Your task to perform on an android device: Open maps Image 0: 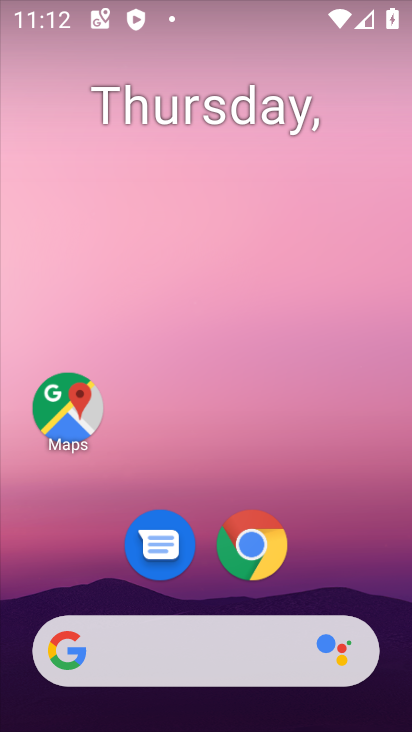
Step 0: click (254, 552)
Your task to perform on an android device: Open maps Image 1: 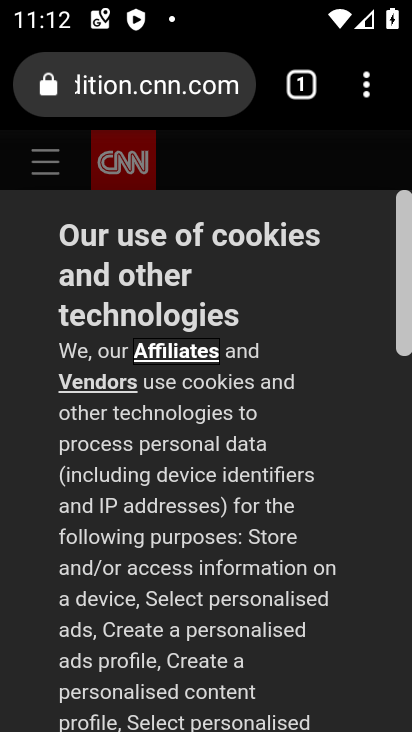
Step 1: press home button
Your task to perform on an android device: Open maps Image 2: 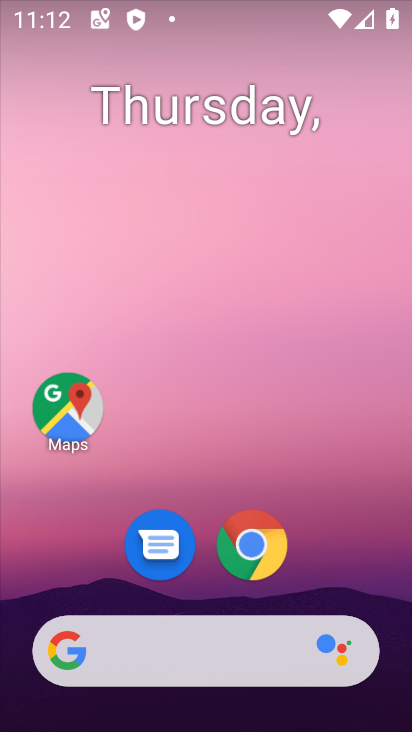
Step 2: click (95, 426)
Your task to perform on an android device: Open maps Image 3: 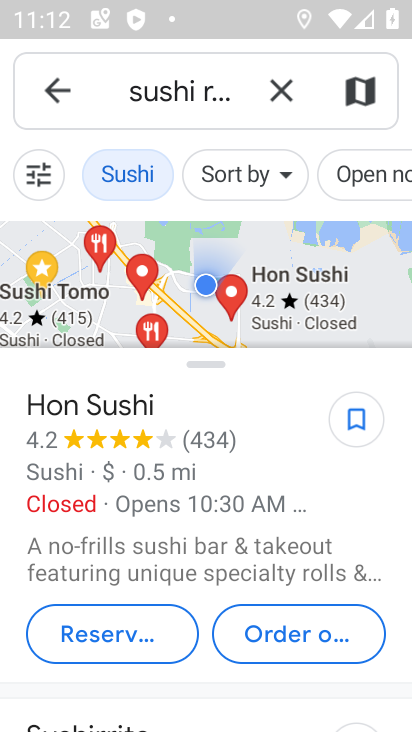
Step 3: task complete